Your task to perform on an android device: Open ESPN.com Image 0: 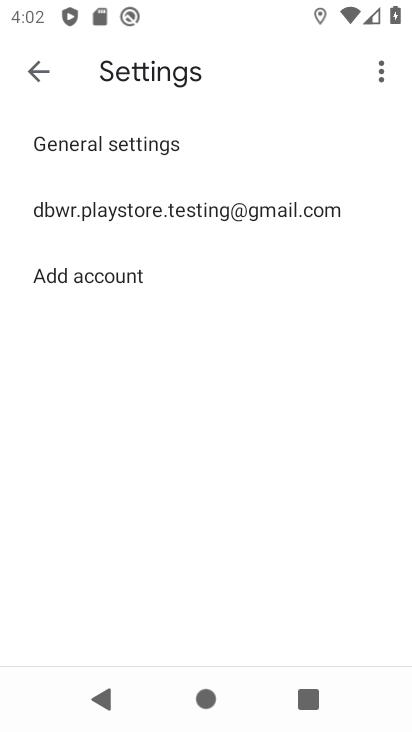
Step 0: press home button
Your task to perform on an android device: Open ESPN.com Image 1: 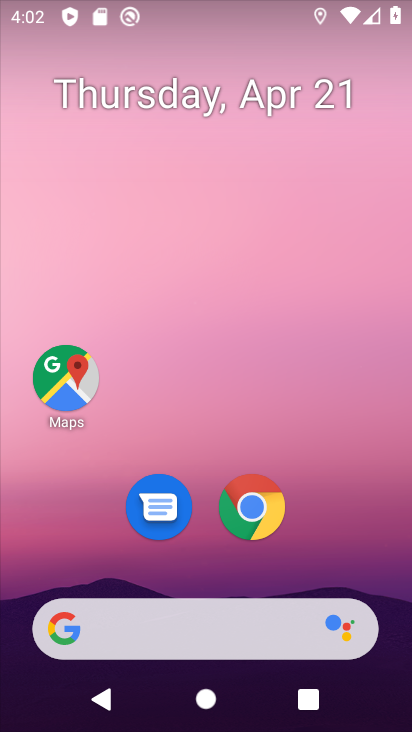
Step 1: click (253, 506)
Your task to perform on an android device: Open ESPN.com Image 2: 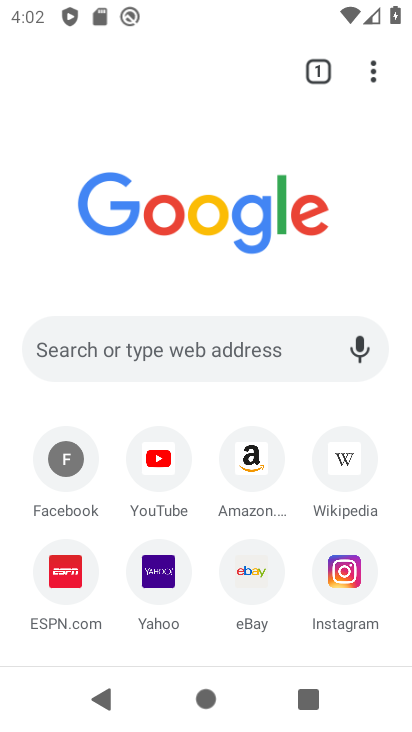
Step 2: click (70, 584)
Your task to perform on an android device: Open ESPN.com Image 3: 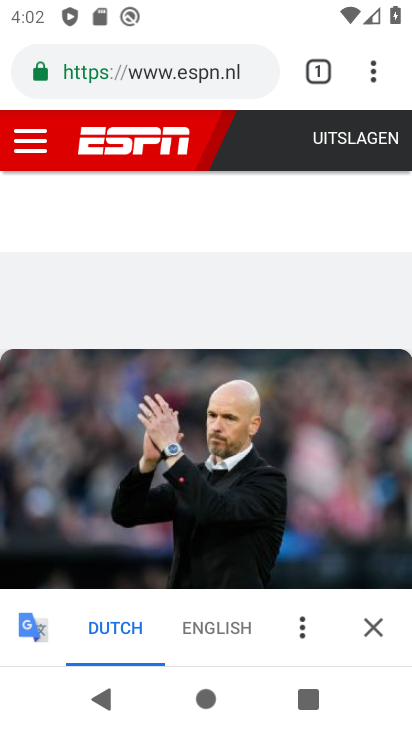
Step 3: task complete